Your task to perform on an android device: move a message to another label in the gmail app Image 0: 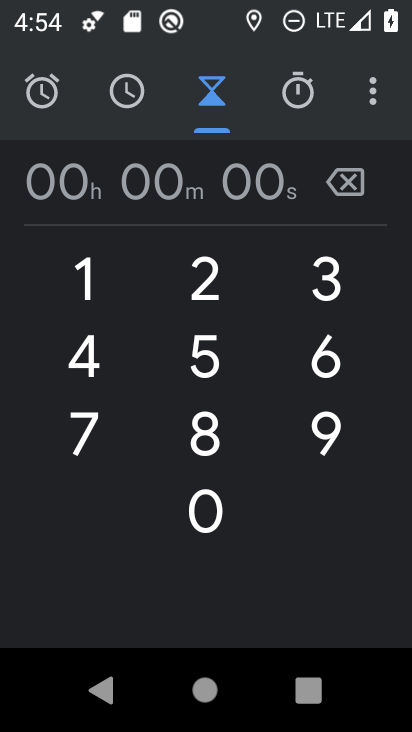
Step 0: press home button
Your task to perform on an android device: move a message to another label in the gmail app Image 1: 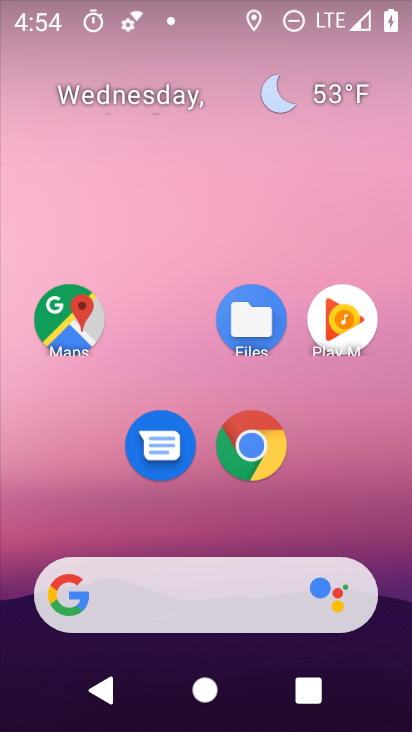
Step 1: drag from (330, 540) to (331, 73)
Your task to perform on an android device: move a message to another label in the gmail app Image 2: 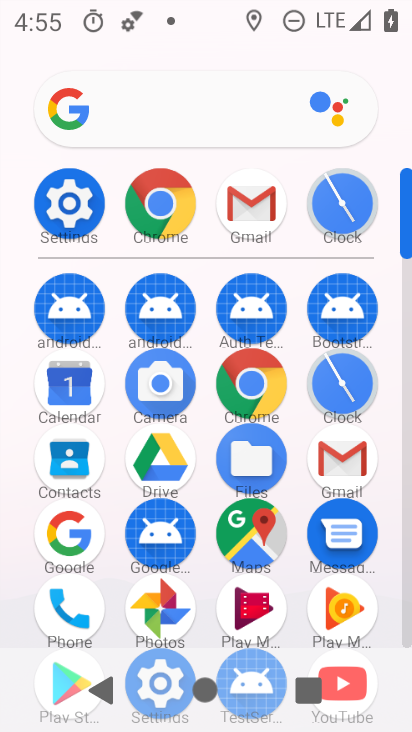
Step 2: click (250, 192)
Your task to perform on an android device: move a message to another label in the gmail app Image 3: 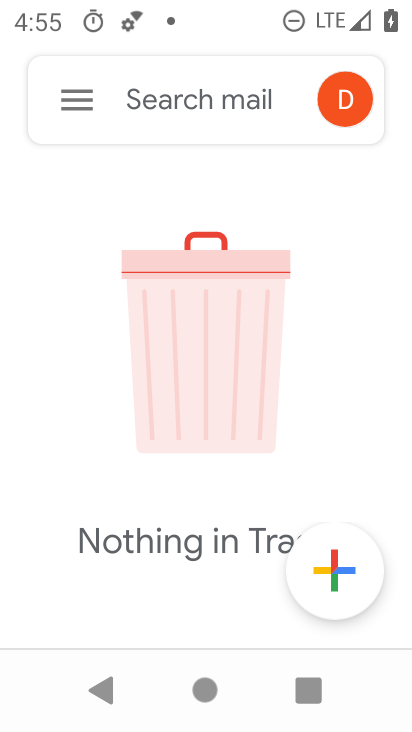
Step 3: click (62, 104)
Your task to perform on an android device: move a message to another label in the gmail app Image 4: 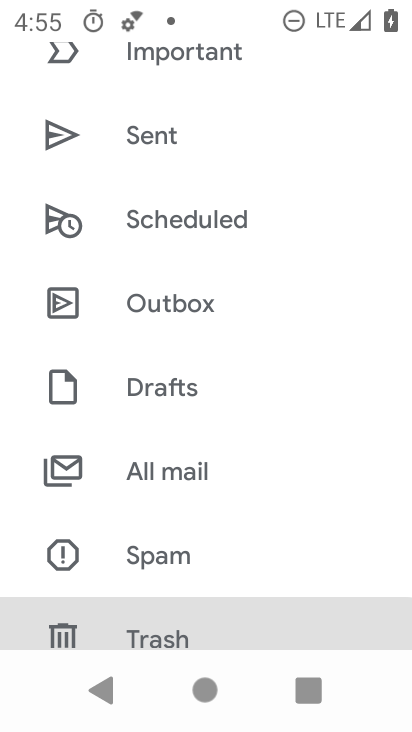
Step 4: drag from (226, 569) to (189, 219)
Your task to perform on an android device: move a message to another label in the gmail app Image 5: 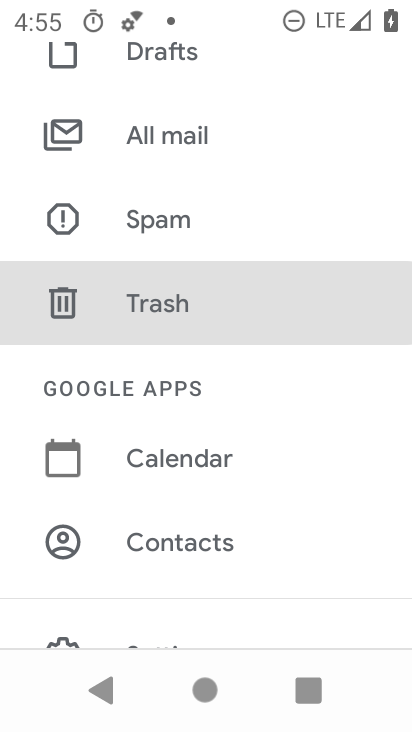
Step 5: drag from (224, 519) to (203, 202)
Your task to perform on an android device: move a message to another label in the gmail app Image 6: 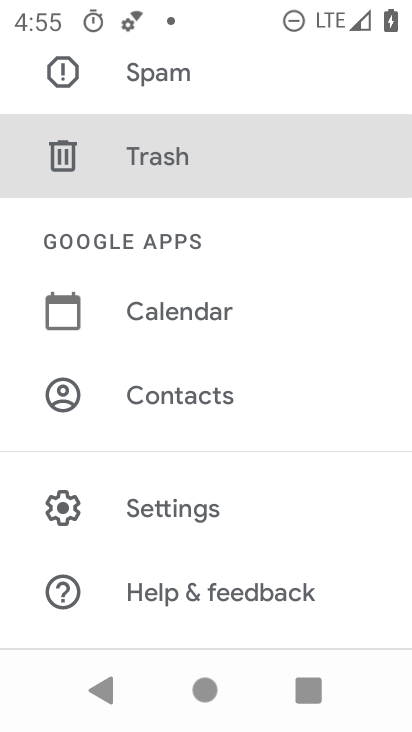
Step 6: click (233, 495)
Your task to perform on an android device: move a message to another label in the gmail app Image 7: 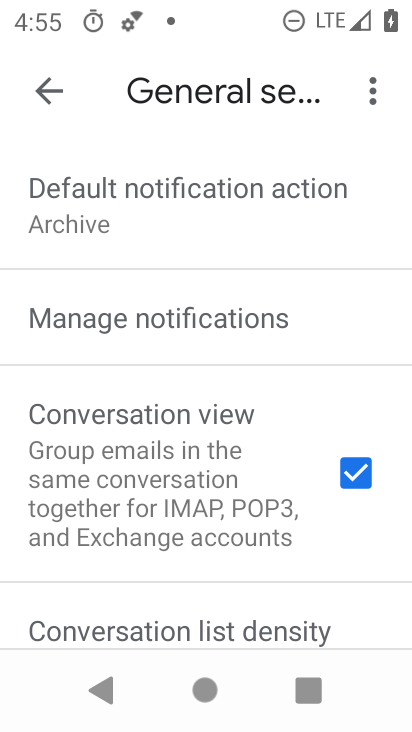
Step 7: task complete